Your task to perform on an android device: What's on my calendar tomorrow? Image 0: 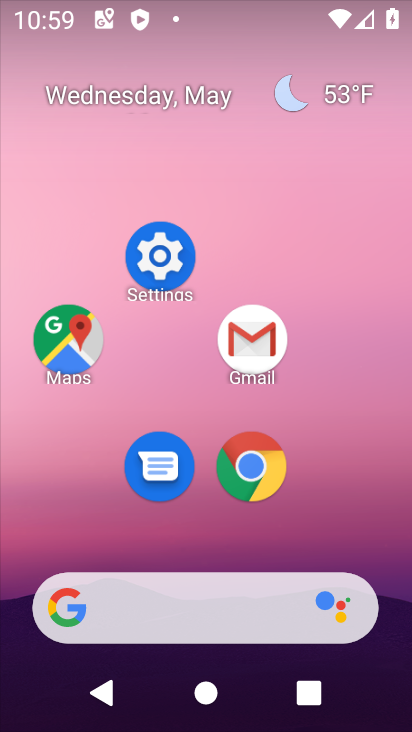
Step 0: drag from (196, 530) to (303, 205)
Your task to perform on an android device: What's on my calendar tomorrow? Image 1: 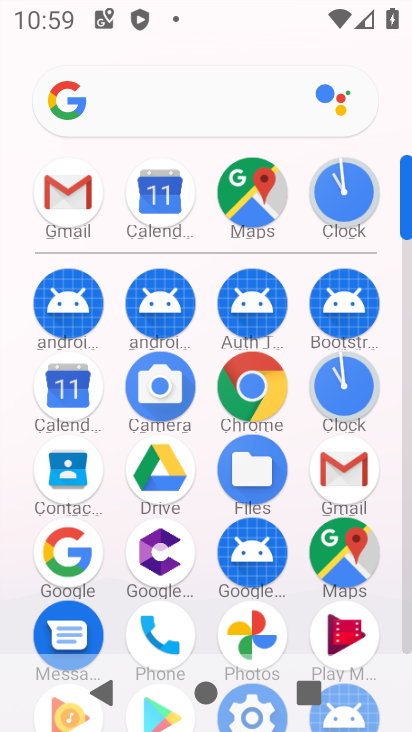
Step 1: click (70, 396)
Your task to perform on an android device: What's on my calendar tomorrow? Image 2: 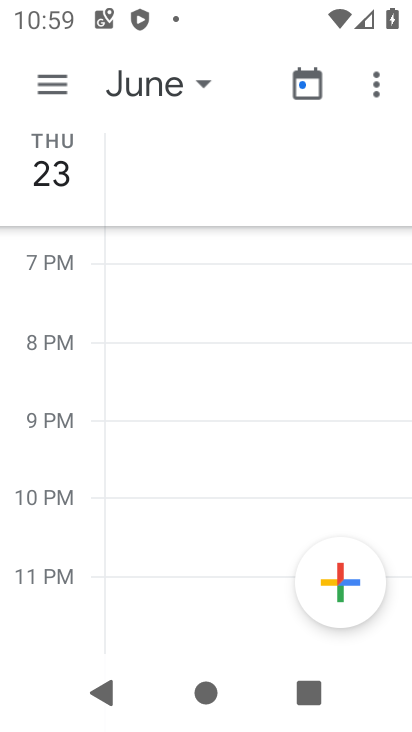
Step 2: click (201, 87)
Your task to perform on an android device: What's on my calendar tomorrow? Image 3: 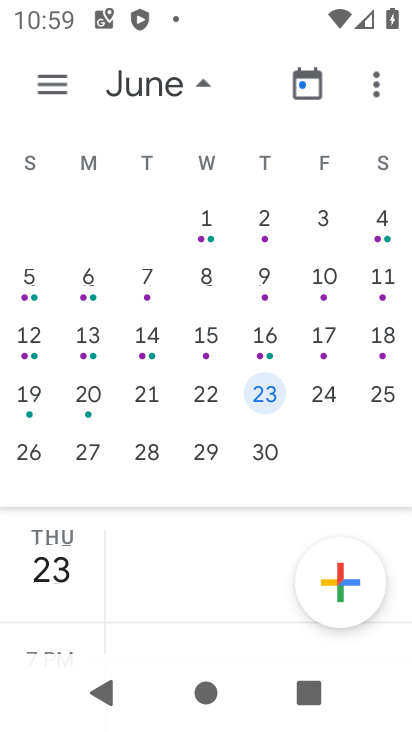
Step 3: drag from (41, 314) to (408, 296)
Your task to perform on an android device: What's on my calendar tomorrow? Image 4: 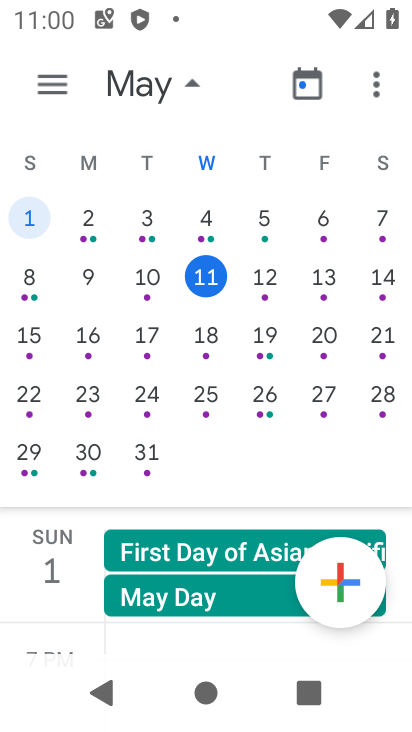
Step 4: click (246, 271)
Your task to perform on an android device: What's on my calendar tomorrow? Image 5: 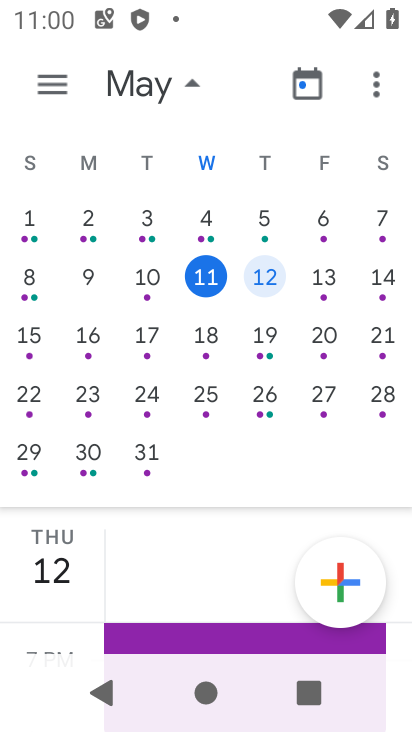
Step 5: task complete